Your task to perform on an android device: Open Chrome and go to the settings page Image 0: 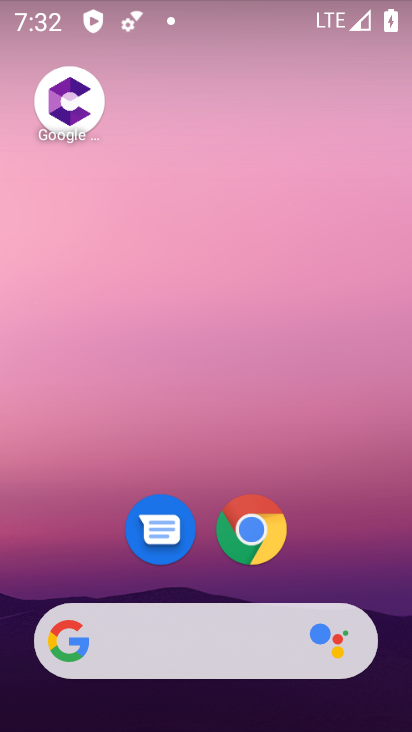
Step 0: drag from (380, 578) to (386, 246)
Your task to perform on an android device: Open Chrome and go to the settings page Image 1: 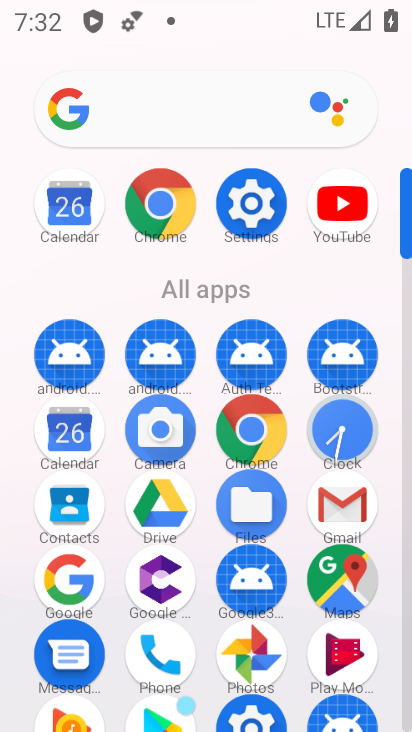
Step 1: click (262, 433)
Your task to perform on an android device: Open Chrome and go to the settings page Image 2: 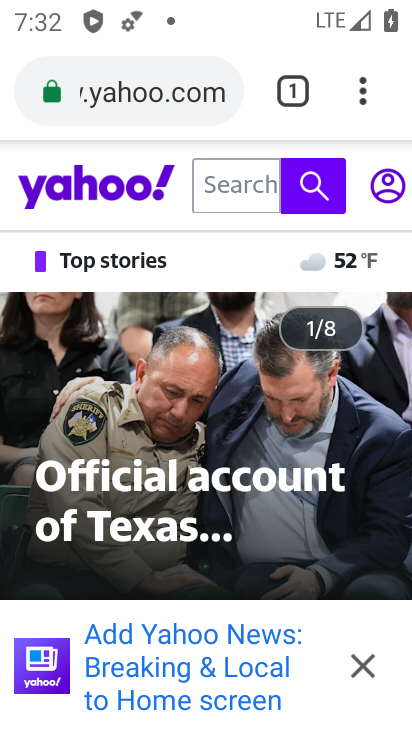
Step 2: click (366, 95)
Your task to perform on an android device: Open Chrome and go to the settings page Image 3: 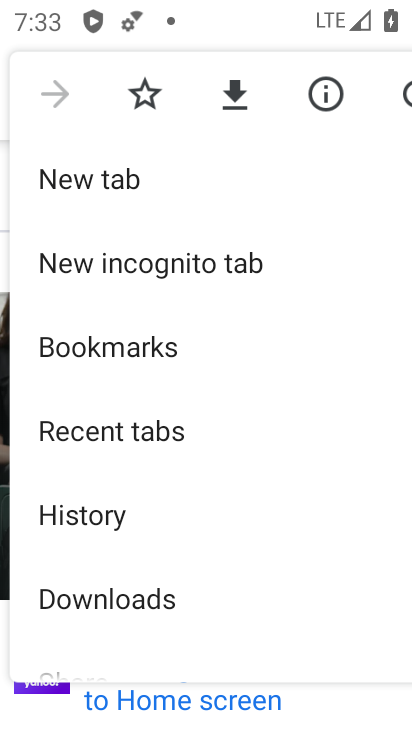
Step 3: drag from (330, 441) to (348, 328)
Your task to perform on an android device: Open Chrome and go to the settings page Image 4: 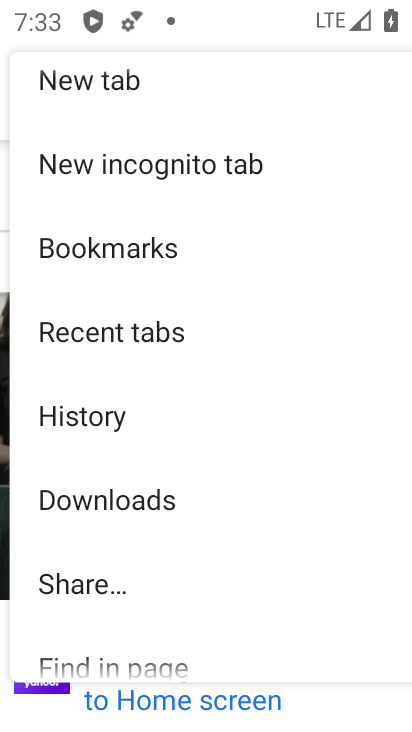
Step 4: drag from (346, 477) to (358, 368)
Your task to perform on an android device: Open Chrome and go to the settings page Image 5: 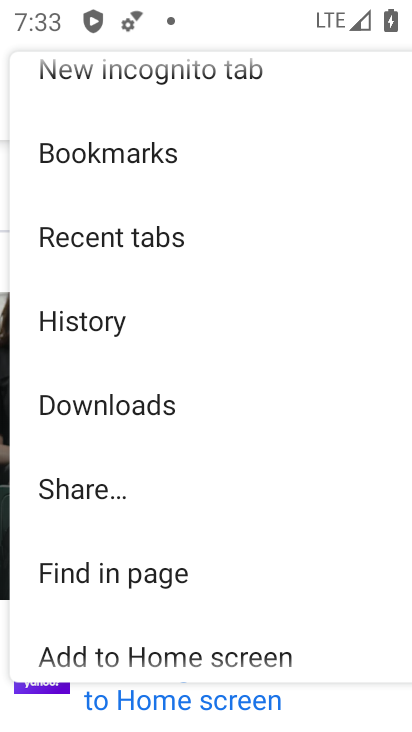
Step 5: drag from (355, 487) to (349, 384)
Your task to perform on an android device: Open Chrome and go to the settings page Image 6: 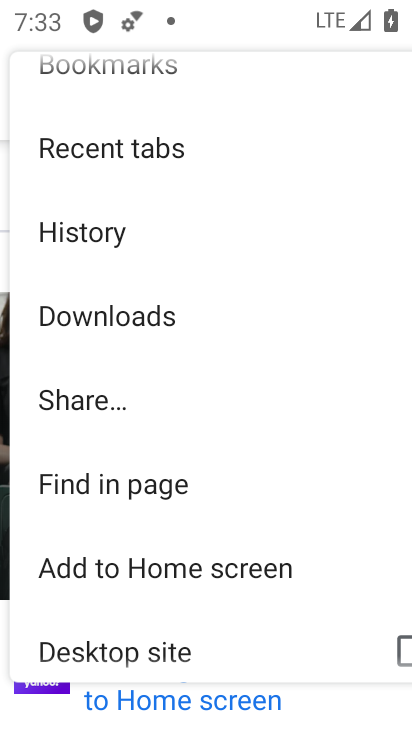
Step 6: drag from (342, 477) to (346, 350)
Your task to perform on an android device: Open Chrome and go to the settings page Image 7: 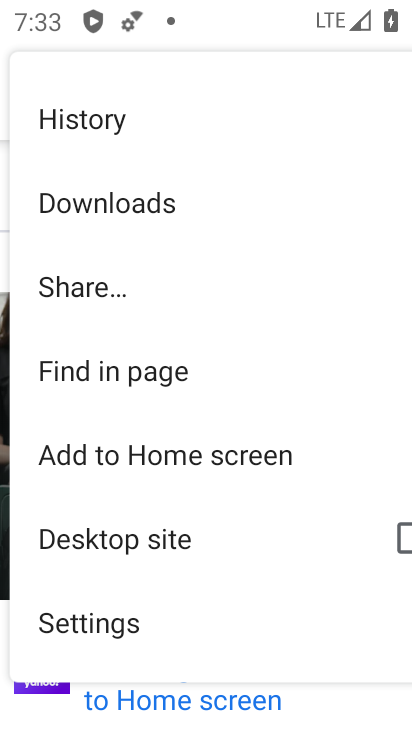
Step 7: drag from (347, 475) to (355, 368)
Your task to perform on an android device: Open Chrome and go to the settings page Image 8: 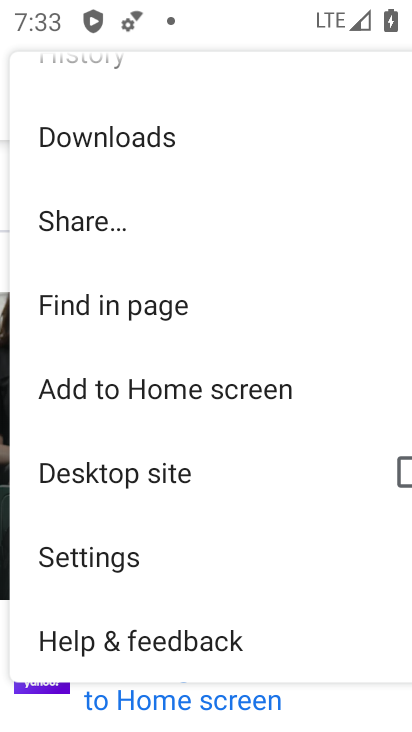
Step 8: click (138, 556)
Your task to perform on an android device: Open Chrome and go to the settings page Image 9: 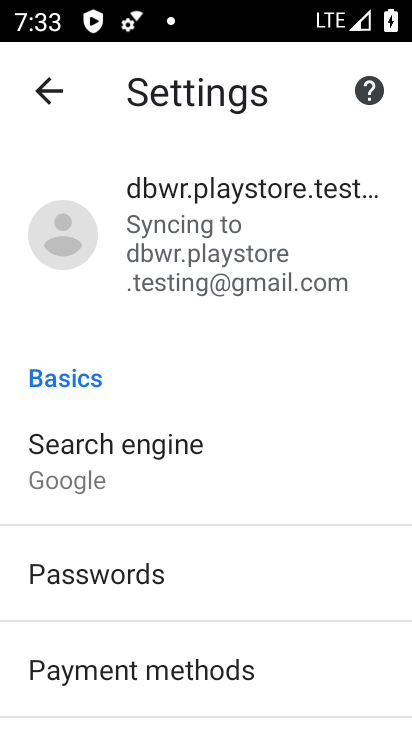
Step 9: task complete